Your task to perform on an android device: Open Google Maps and go to "Timeline" Image 0: 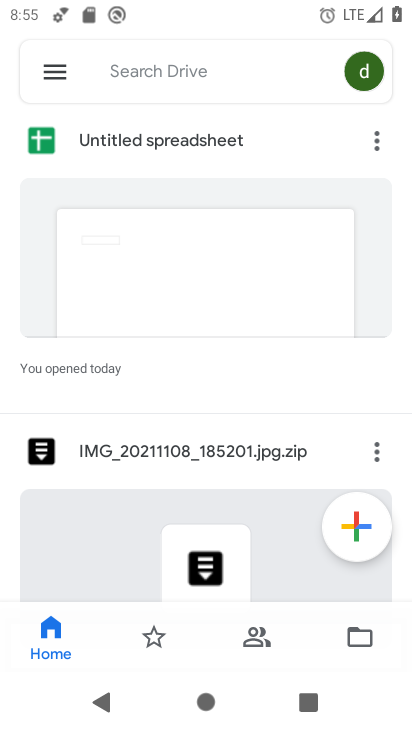
Step 0: press home button
Your task to perform on an android device: Open Google Maps and go to "Timeline" Image 1: 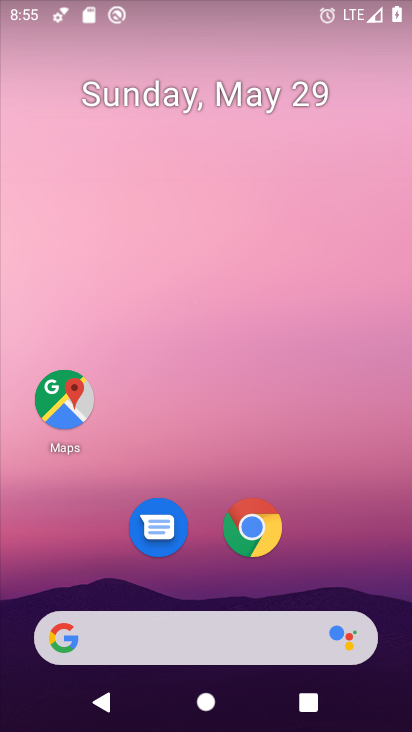
Step 1: click (61, 394)
Your task to perform on an android device: Open Google Maps and go to "Timeline" Image 2: 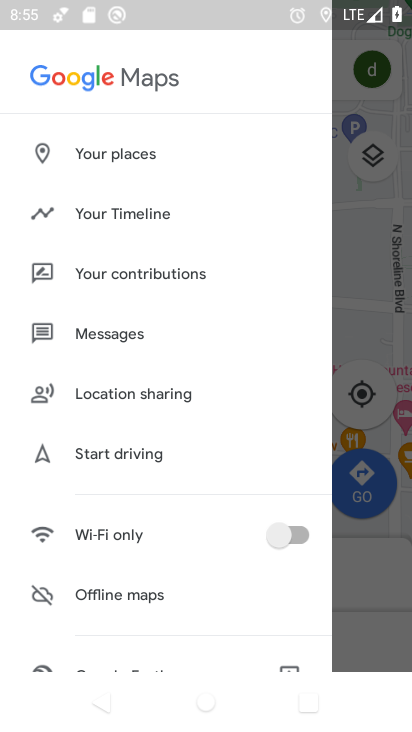
Step 2: click (176, 208)
Your task to perform on an android device: Open Google Maps and go to "Timeline" Image 3: 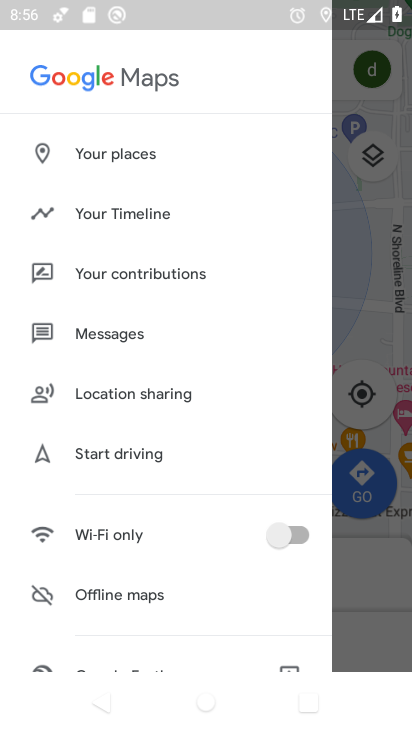
Step 3: click (183, 211)
Your task to perform on an android device: Open Google Maps and go to "Timeline" Image 4: 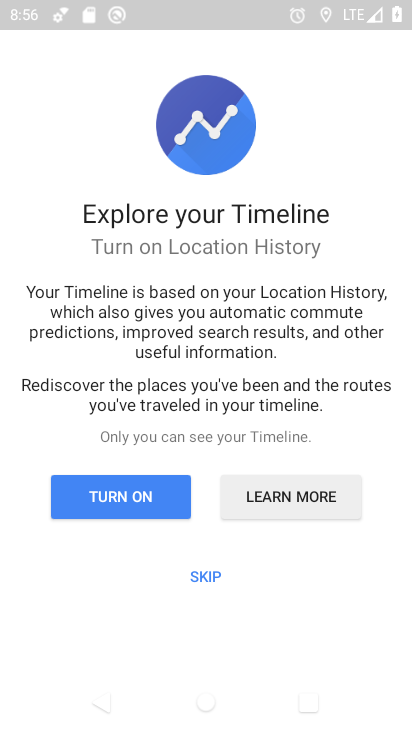
Step 4: click (126, 492)
Your task to perform on an android device: Open Google Maps and go to "Timeline" Image 5: 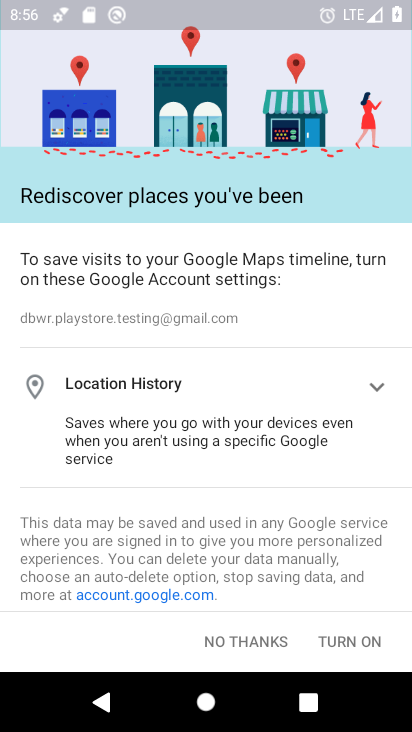
Step 5: drag from (209, 580) to (293, 146)
Your task to perform on an android device: Open Google Maps and go to "Timeline" Image 6: 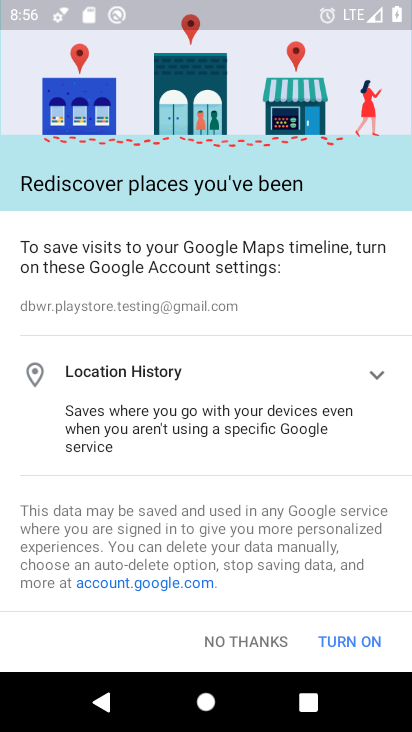
Step 6: click (346, 638)
Your task to perform on an android device: Open Google Maps and go to "Timeline" Image 7: 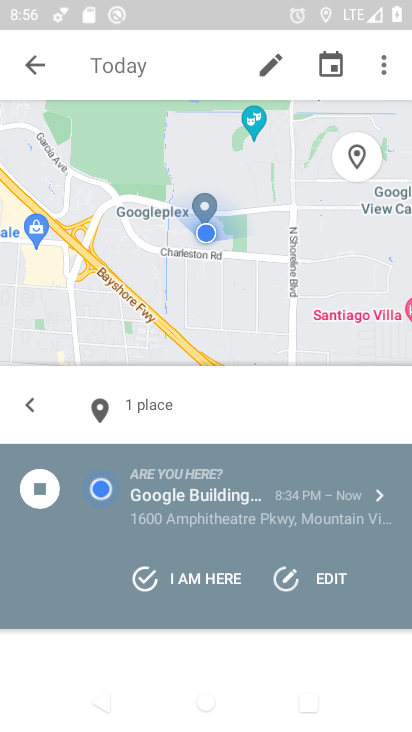
Step 7: task complete